Your task to perform on an android device: delete location history Image 0: 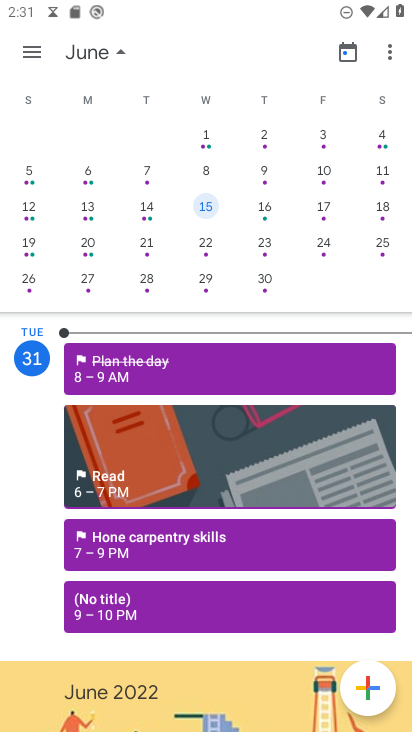
Step 0: press back button
Your task to perform on an android device: delete location history Image 1: 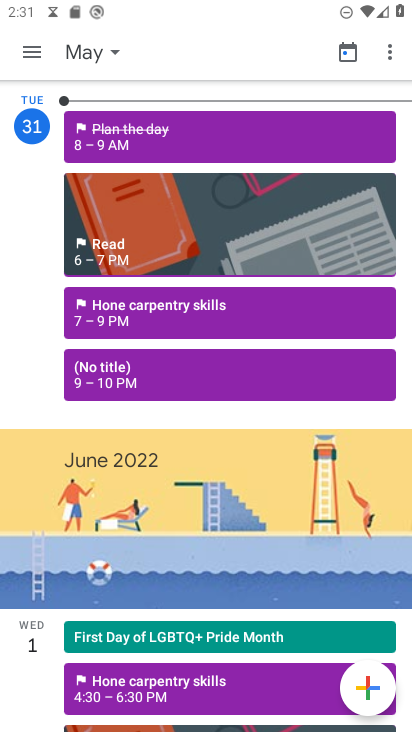
Step 1: press home button
Your task to perform on an android device: delete location history Image 2: 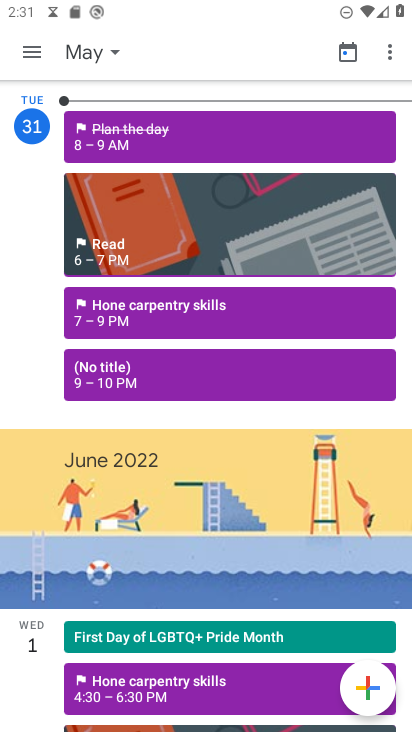
Step 2: press home button
Your task to perform on an android device: delete location history Image 3: 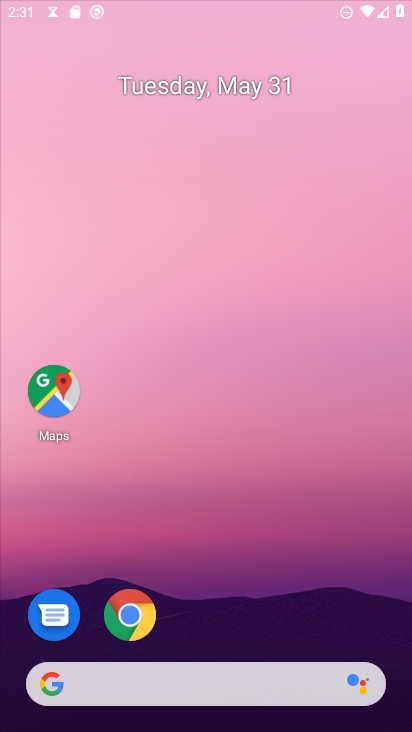
Step 3: press home button
Your task to perform on an android device: delete location history Image 4: 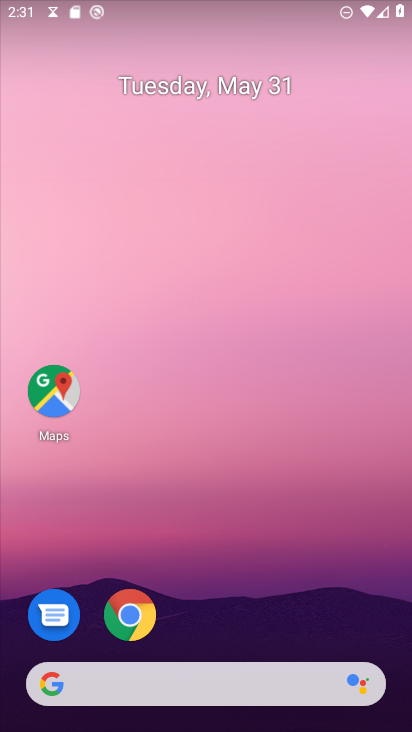
Step 4: drag from (197, 626) to (201, 217)
Your task to perform on an android device: delete location history Image 5: 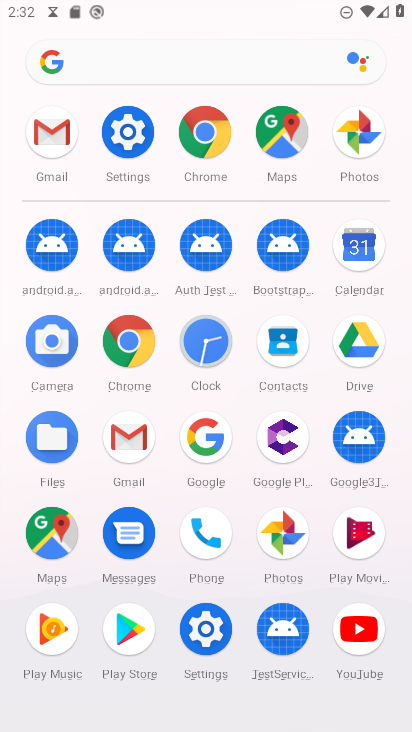
Step 5: click (133, 115)
Your task to perform on an android device: delete location history Image 6: 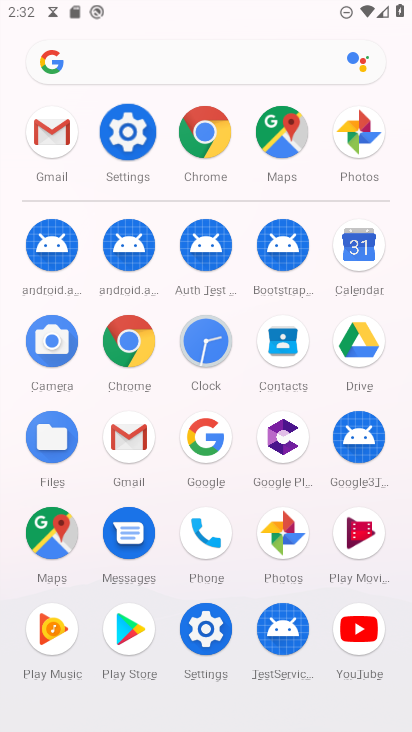
Step 6: click (133, 115)
Your task to perform on an android device: delete location history Image 7: 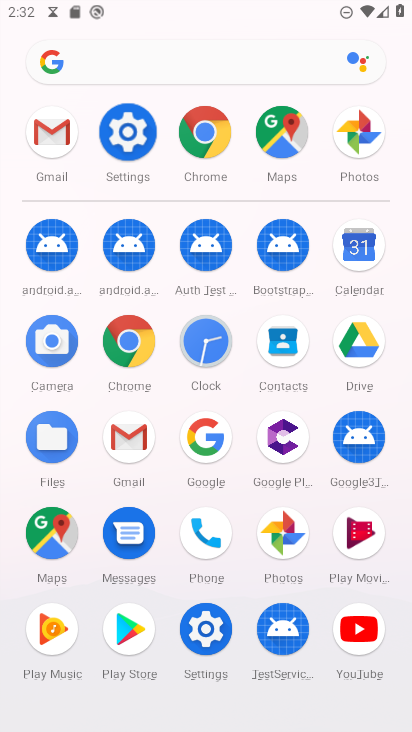
Step 7: click (136, 121)
Your task to perform on an android device: delete location history Image 8: 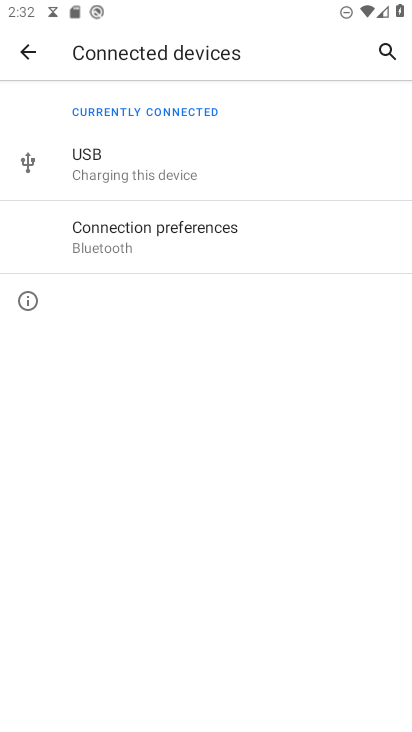
Step 8: click (21, 60)
Your task to perform on an android device: delete location history Image 9: 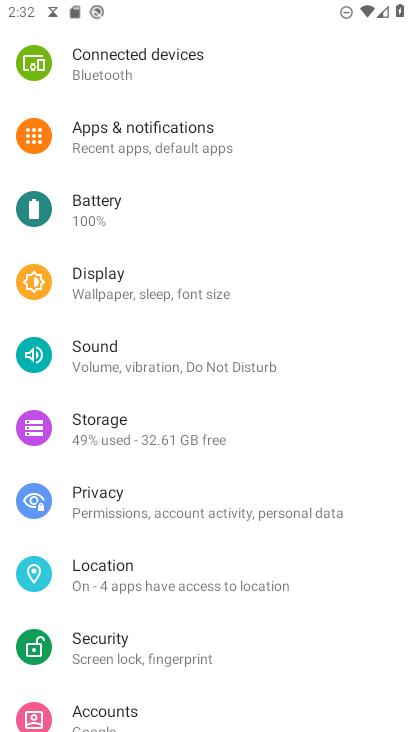
Step 9: click (130, 574)
Your task to perform on an android device: delete location history Image 10: 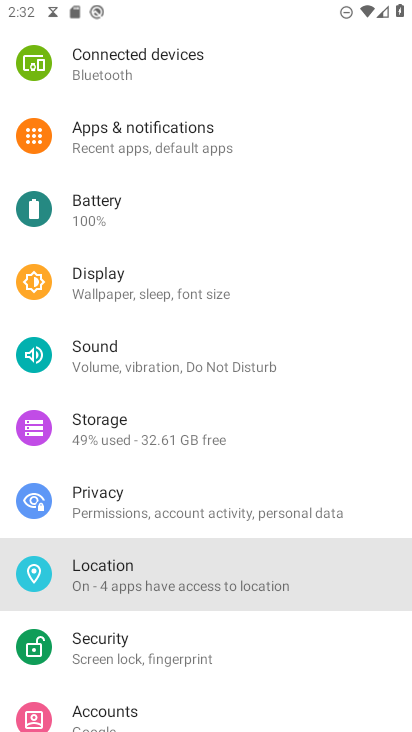
Step 10: click (129, 570)
Your task to perform on an android device: delete location history Image 11: 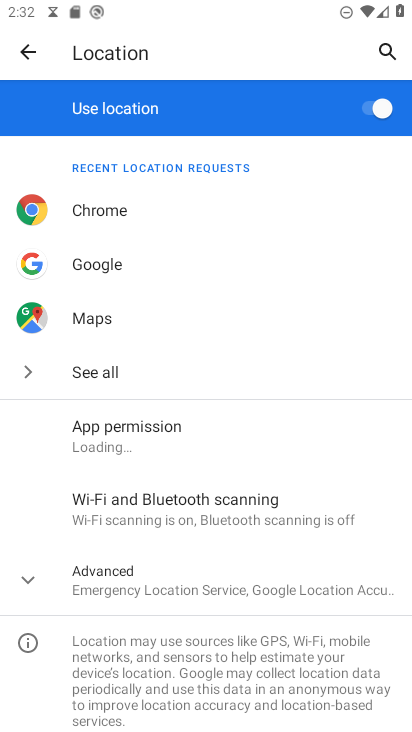
Step 11: click (119, 584)
Your task to perform on an android device: delete location history Image 12: 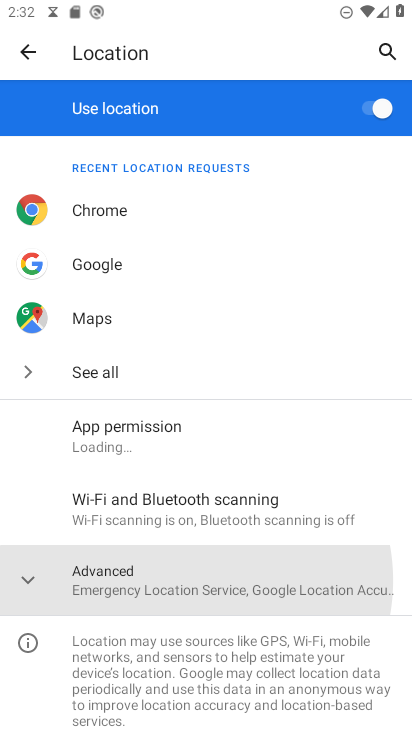
Step 12: click (119, 584)
Your task to perform on an android device: delete location history Image 13: 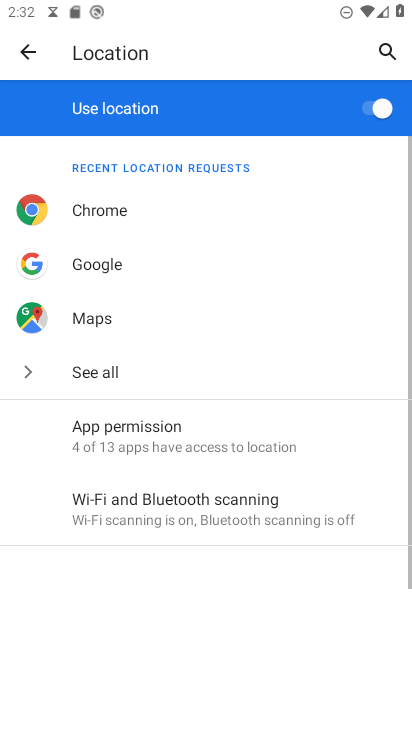
Step 13: click (119, 584)
Your task to perform on an android device: delete location history Image 14: 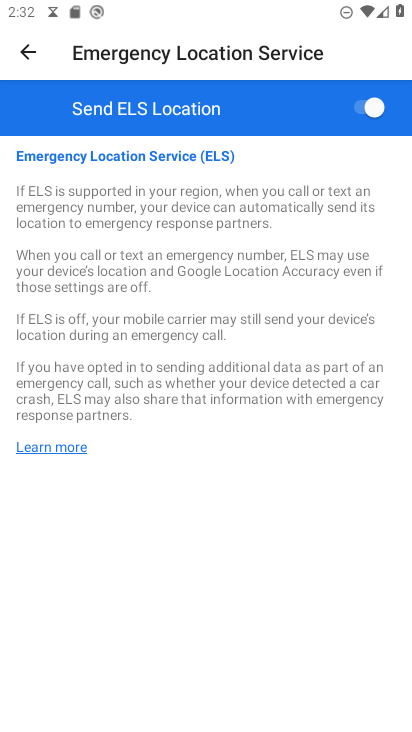
Step 14: click (31, 39)
Your task to perform on an android device: delete location history Image 15: 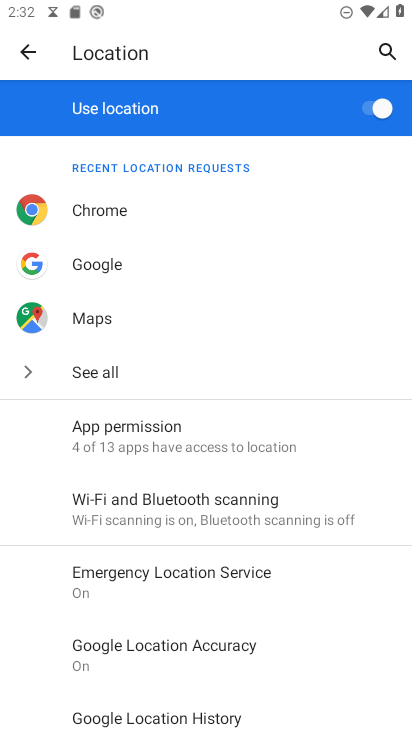
Step 15: drag from (196, 665) to (241, 307)
Your task to perform on an android device: delete location history Image 16: 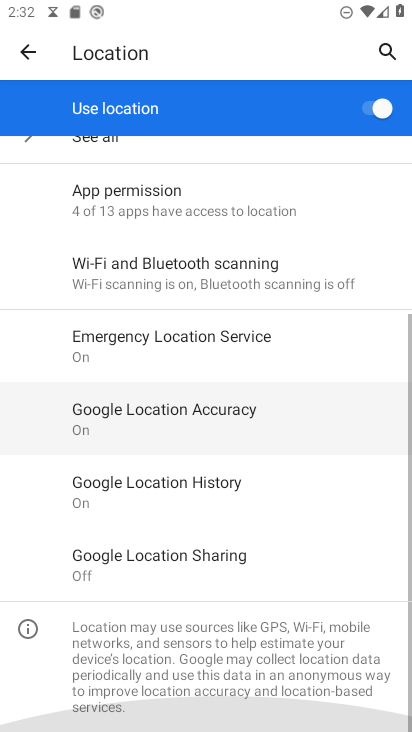
Step 16: drag from (240, 554) to (202, 372)
Your task to perform on an android device: delete location history Image 17: 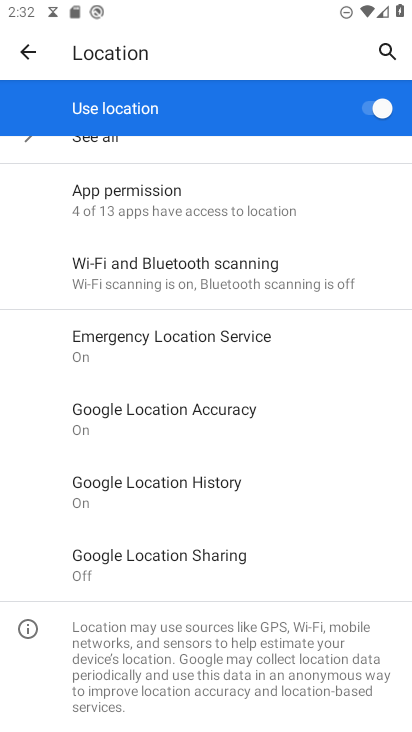
Step 17: click (164, 482)
Your task to perform on an android device: delete location history Image 18: 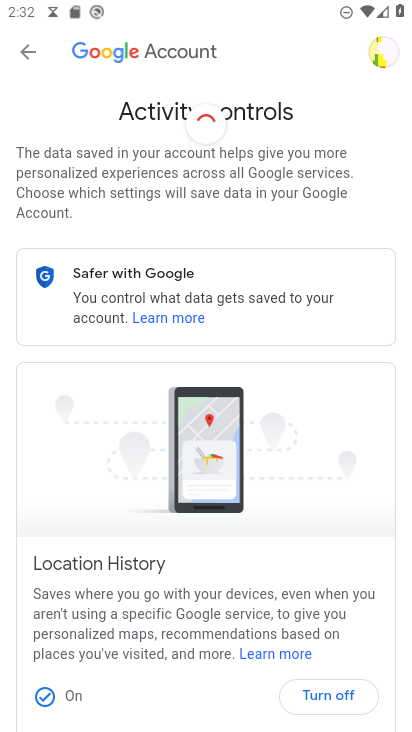
Step 18: task complete